Your task to perform on an android device: change your default location settings in chrome Image 0: 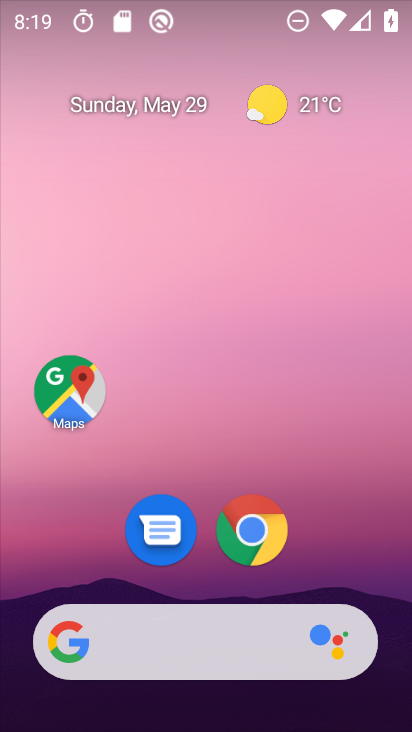
Step 0: drag from (253, 632) to (334, 158)
Your task to perform on an android device: change your default location settings in chrome Image 1: 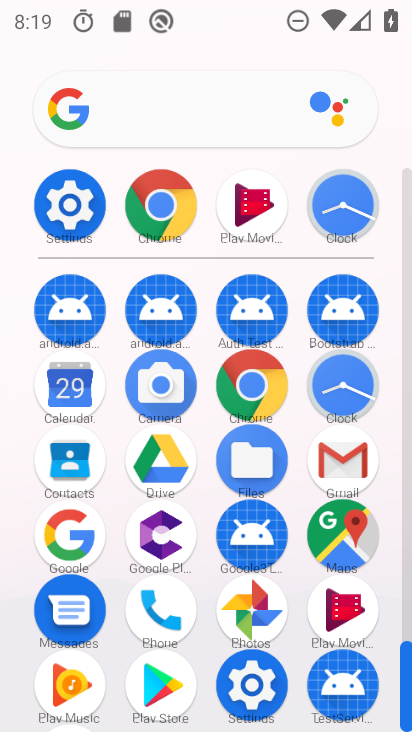
Step 1: click (176, 213)
Your task to perform on an android device: change your default location settings in chrome Image 2: 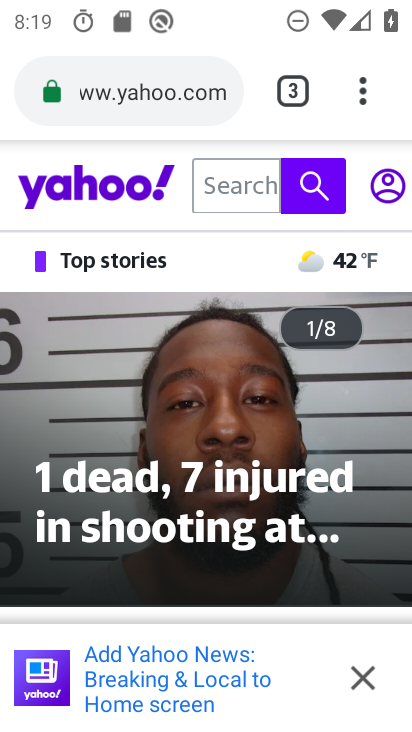
Step 2: click (371, 95)
Your task to perform on an android device: change your default location settings in chrome Image 3: 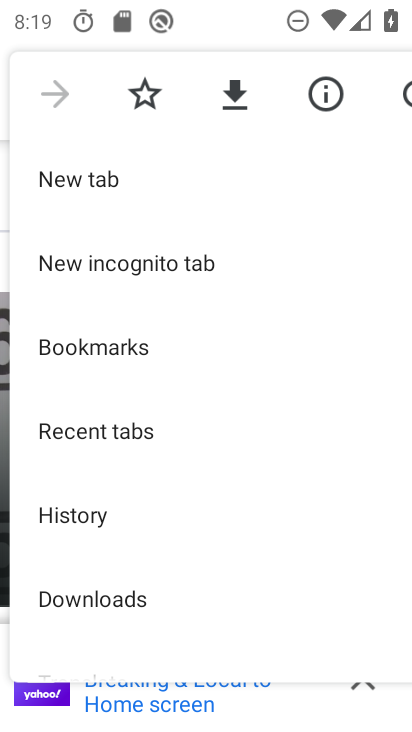
Step 3: drag from (218, 502) to (260, 271)
Your task to perform on an android device: change your default location settings in chrome Image 4: 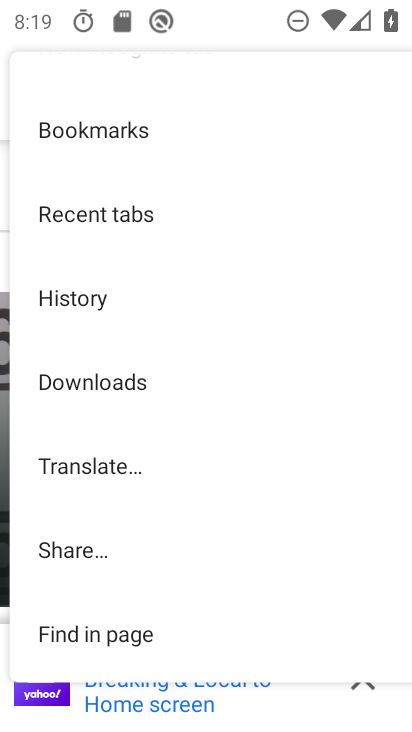
Step 4: drag from (125, 616) to (144, 421)
Your task to perform on an android device: change your default location settings in chrome Image 5: 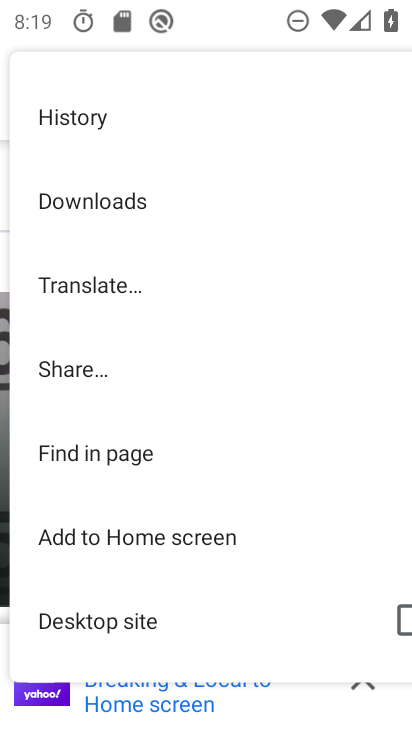
Step 5: drag from (115, 516) to (104, 321)
Your task to perform on an android device: change your default location settings in chrome Image 6: 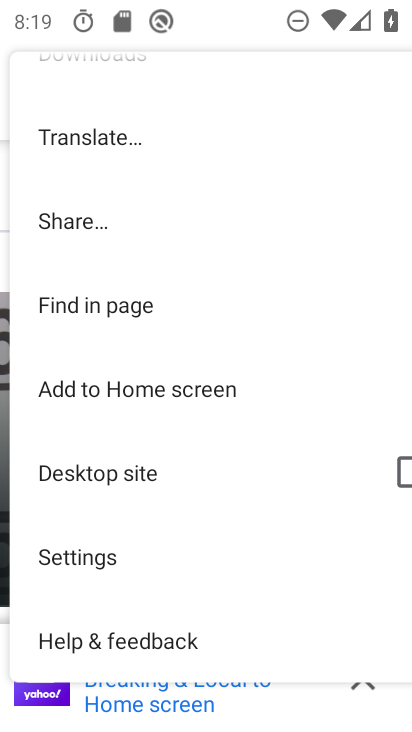
Step 6: click (131, 559)
Your task to perform on an android device: change your default location settings in chrome Image 7: 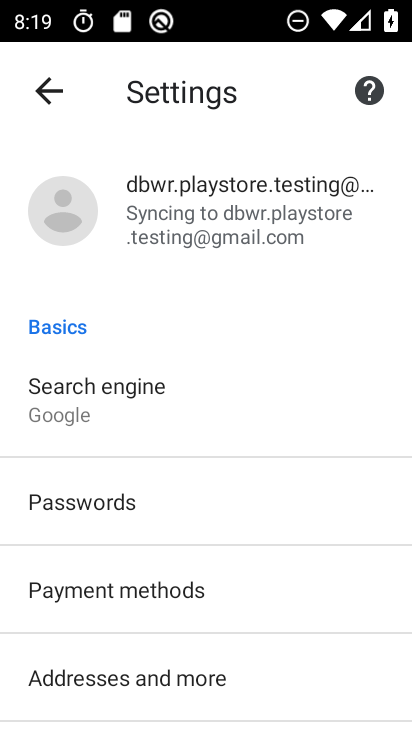
Step 7: drag from (131, 554) to (152, 250)
Your task to perform on an android device: change your default location settings in chrome Image 8: 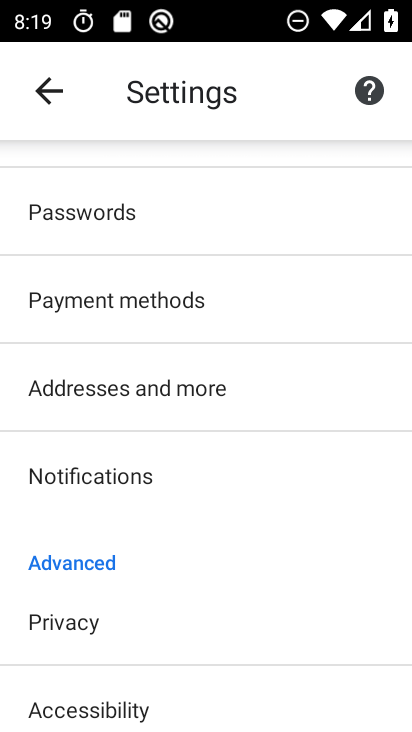
Step 8: drag from (170, 446) to (241, 302)
Your task to perform on an android device: change your default location settings in chrome Image 9: 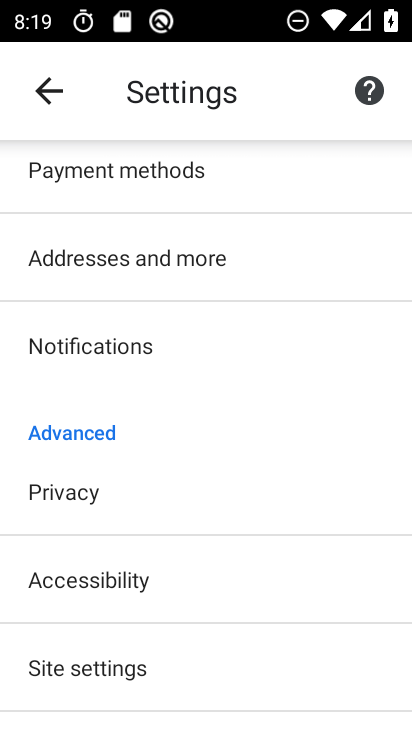
Step 9: click (140, 657)
Your task to perform on an android device: change your default location settings in chrome Image 10: 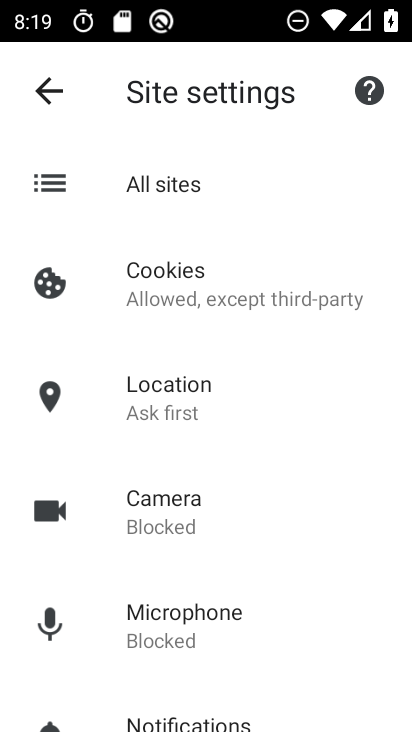
Step 10: click (163, 420)
Your task to perform on an android device: change your default location settings in chrome Image 11: 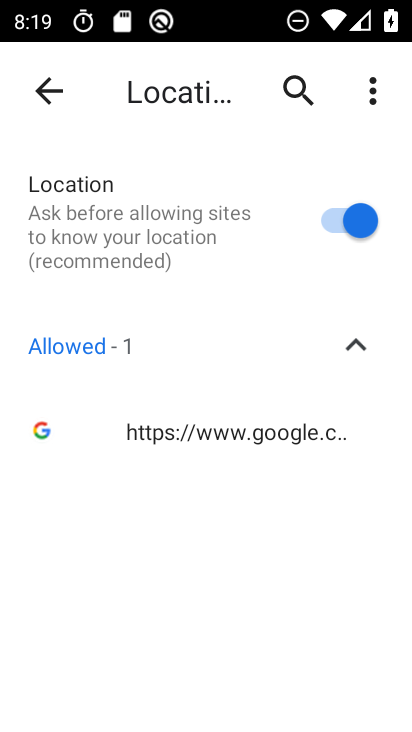
Step 11: click (355, 218)
Your task to perform on an android device: change your default location settings in chrome Image 12: 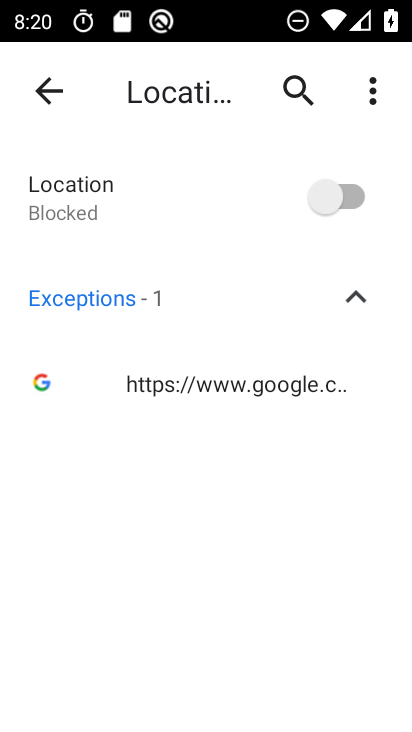
Step 12: task complete